Your task to perform on an android device: check out phone information Image 0: 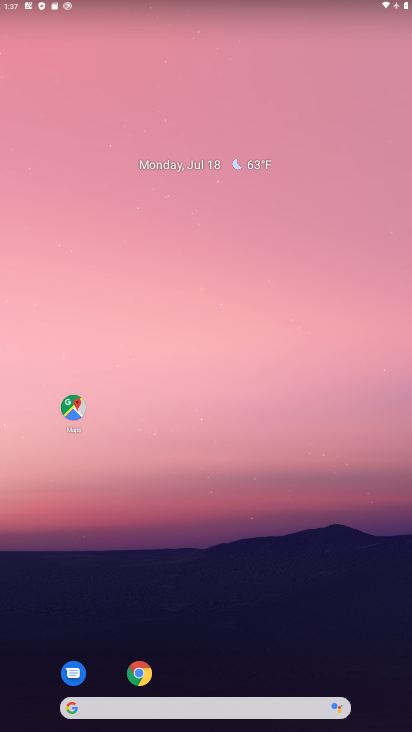
Step 0: drag from (316, 613) to (296, 225)
Your task to perform on an android device: check out phone information Image 1: 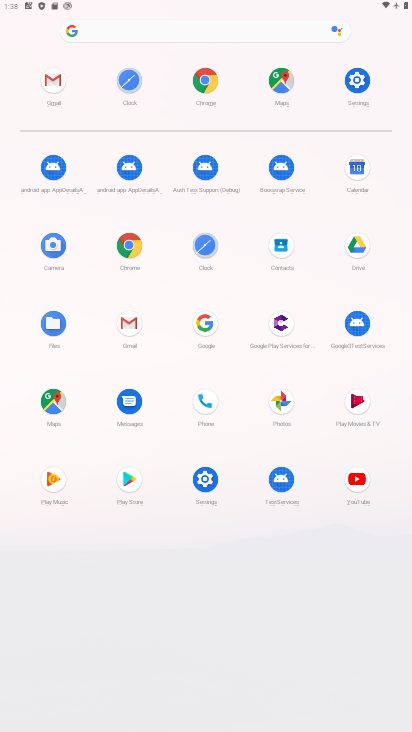
Step 1: click (348, 89)
Your task to perform on an android device: check out phone information Image 2: 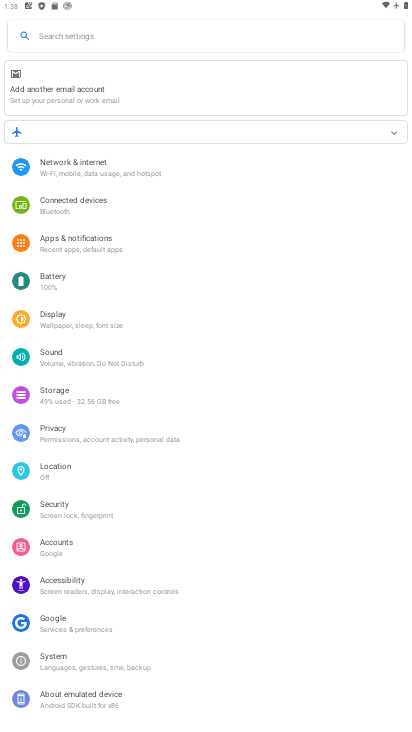
Step 2: drag from (183, 662) to (192, 298)
Your task to perform on an android device: check out phone information Image 3: 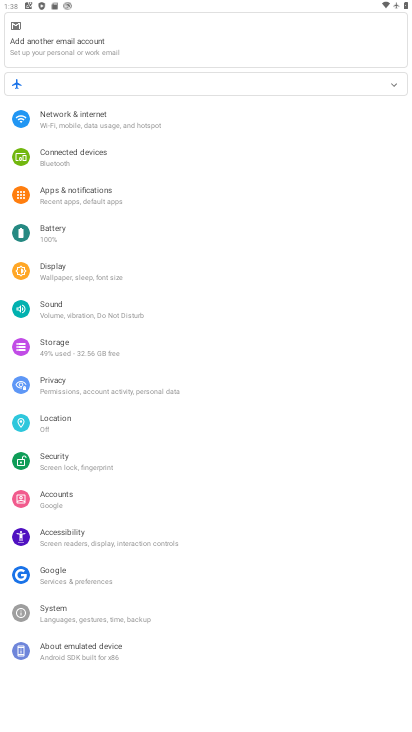
Step 3: click (129, 659)
Your task to perform on an android device: check out phone information Image 4: 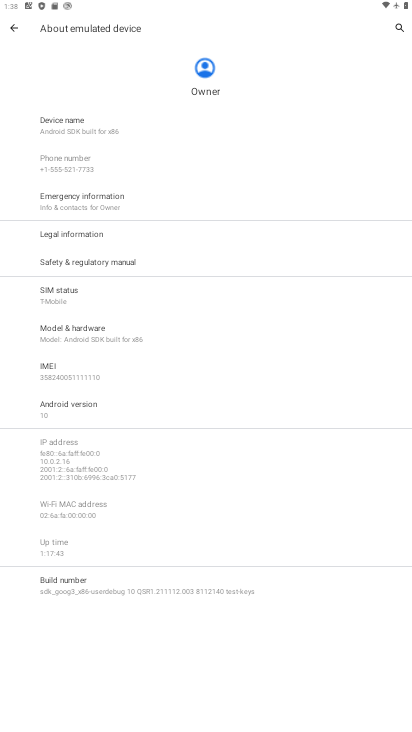
Step 4: task complete